Your task to perform on an android device: turn off notifications settings in the gmail app Image 0: 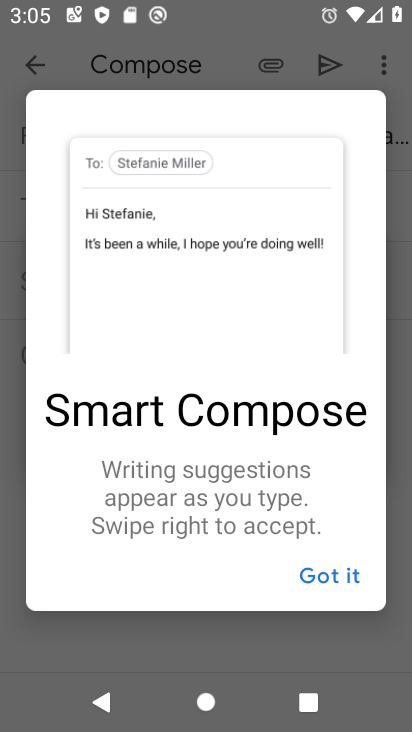
Step 0: press home button
Your task to perform on an android device: turn off notifications settings in the gmail app Image 1: 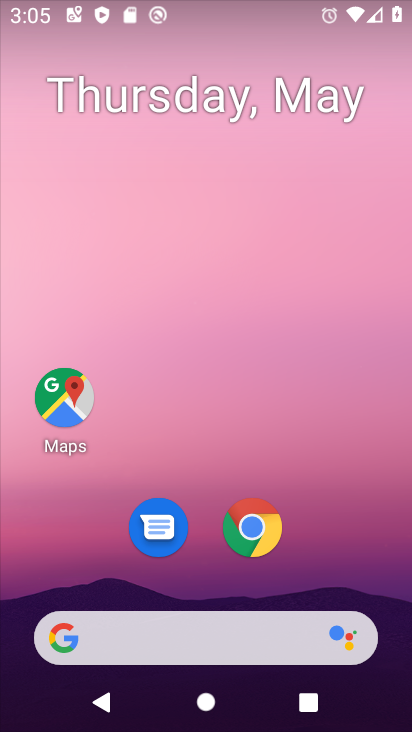
Step 1: drag from (99, 606) to (193, 179)
Your task to perform on an android device: turn off notifications settings in the gmail app Image 2: 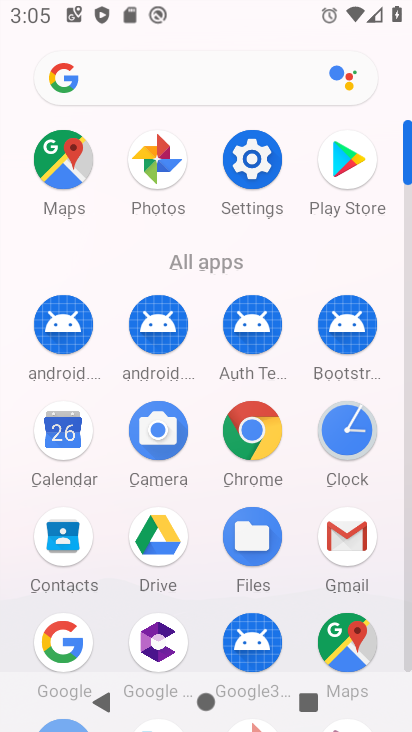
Step 2: click (303, 546)
Your task to perform on an android device: turn off notifications settings in the gmail app Image 3: 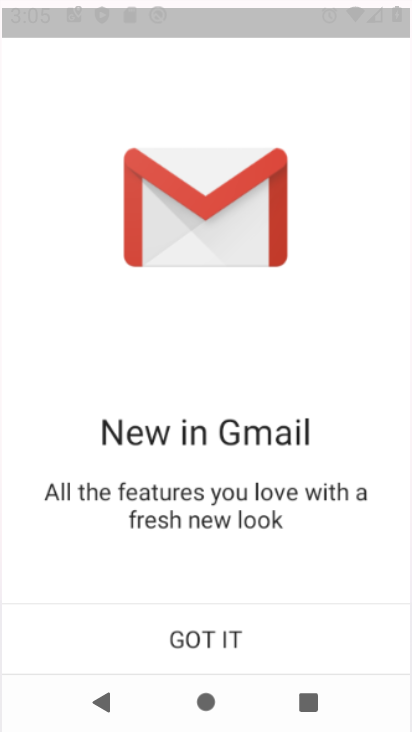
Step 3: click (335, 536)
Your task to perform on an android device: turn off notifications settings in the gmail app Image 4: 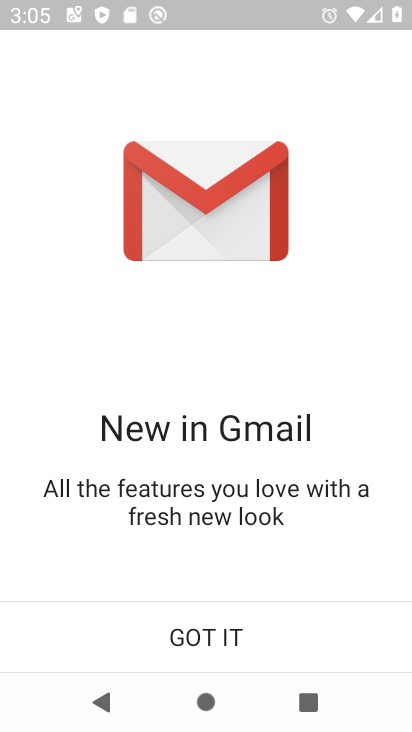
Step 4: click (235, 631)
Your task to perform on an android device: turn off notifications settings in the gmail app Image 5: 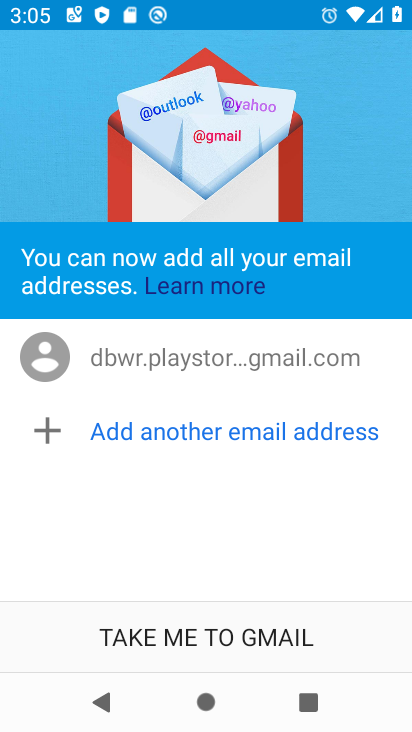
Step 5: click (235, 631)
Your task to perform on an android device: turn off notifications settings in the gmail app Image 6: 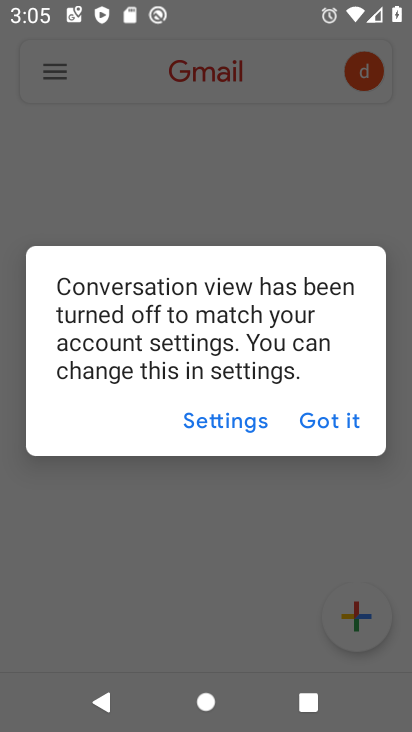
Step 6: click (335, 425)
Your task to perform on an android device: turn off notifications settings in the gmail app Image 7: 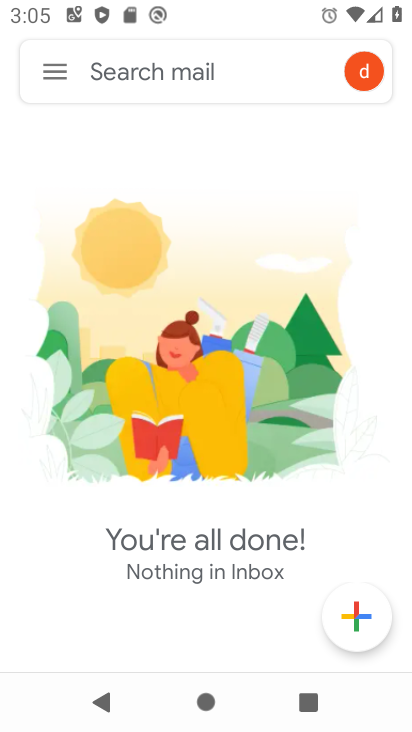
Step 7: click (59, 70)
Your task to perform on an android device: turn off notifications settings in the gmail app Image 8: 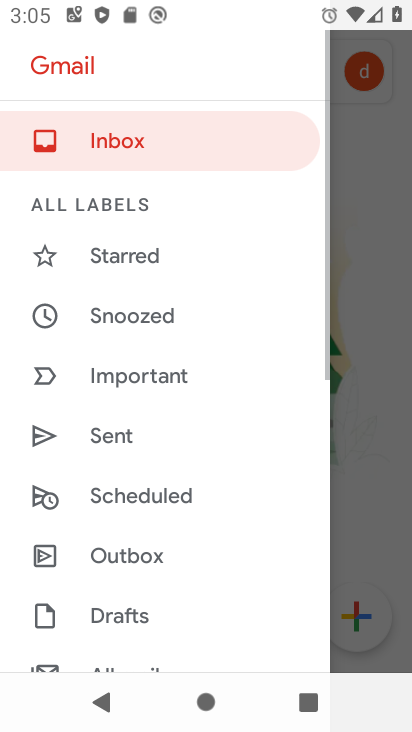
Step 8: drag from (122, 588) to (250, 127)
Your task to perform on an android device: turn off notifications settings in the gmail app Image 9: 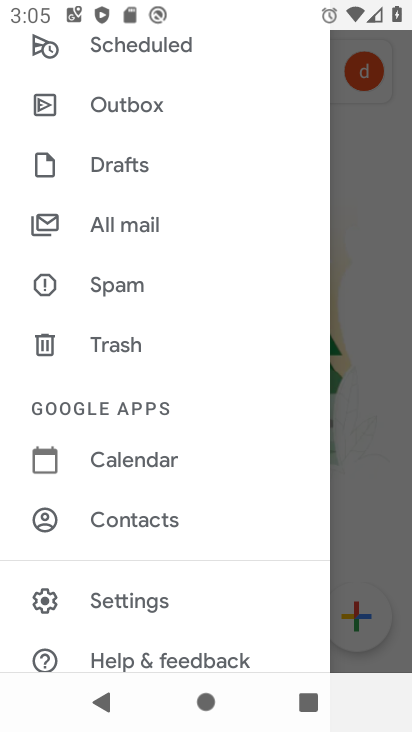
Step 9: click (152, 594)
Your task to perform on an android device: turn off notifications settings in the gmail app Image 10: 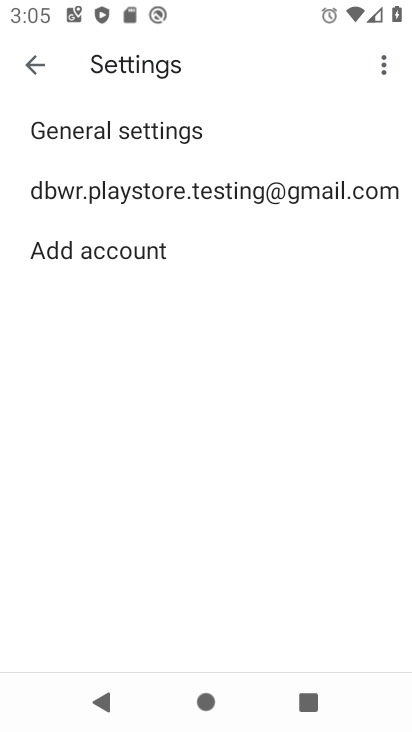
Step 10: click (315, 198)
Your task to perform on an android device: turn off notifications settings in the gmail app Image 11: 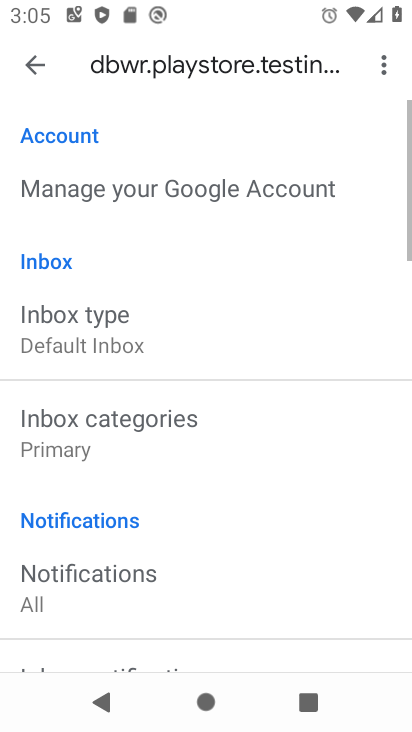
Step 11: drag from (211, 516) to (342, 218)
Your task to perform on an android device: turn off notifications settings in the gmail app Image 12: 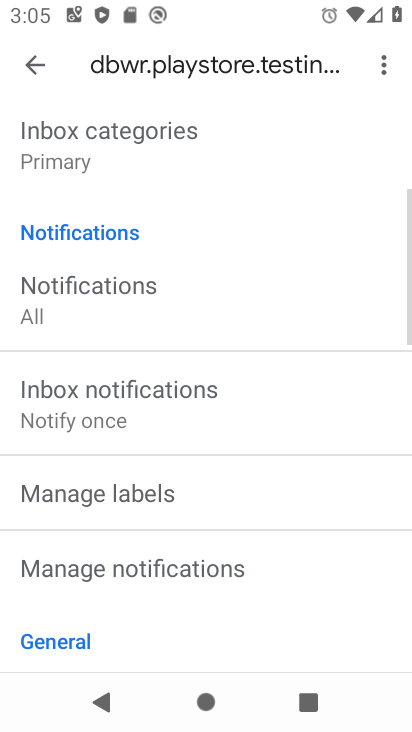
Step 12: click (209, 565)
Your task to perform on an android device: turn off notifications settings in the gmail app Image 13: 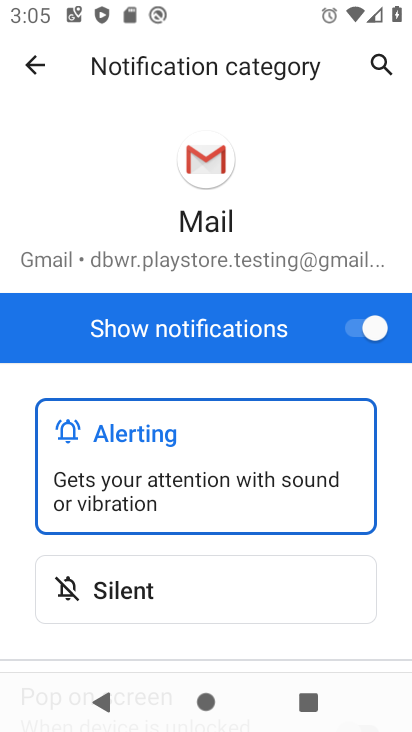
Step 13: click (347, 328)
Your task to perform on an android device: turn off notifications settings in the gmail app Image 14: 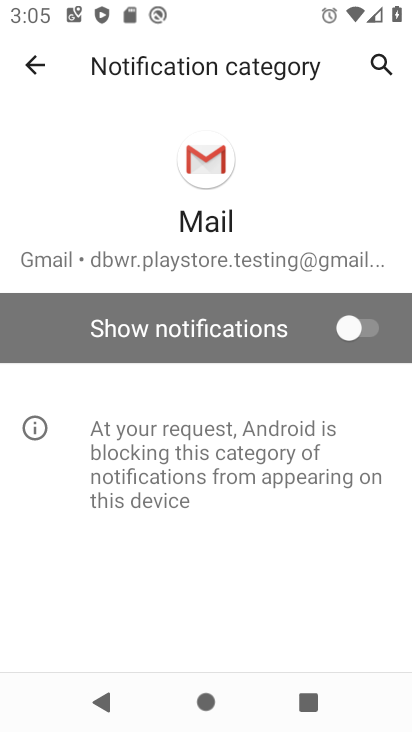
Step 14: task complete